Your task to perform on an android device: Search for Mexican restaurants on Maps Image 0: 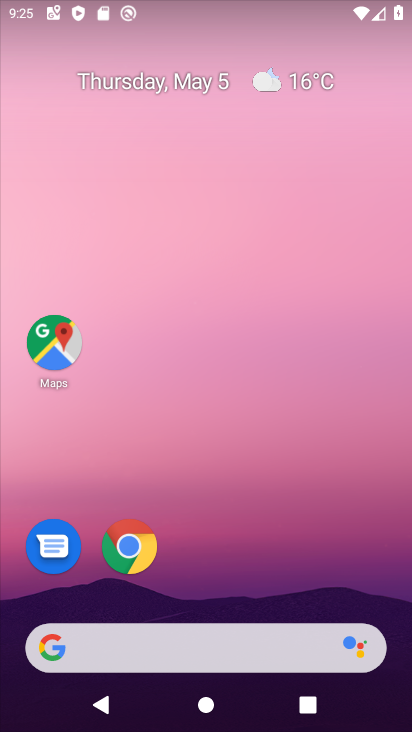
Step 0: drag from (190, 639) to (350, 43)
Your task to perform on an android device: Search for Mexican restaurants on Maps Image 1: 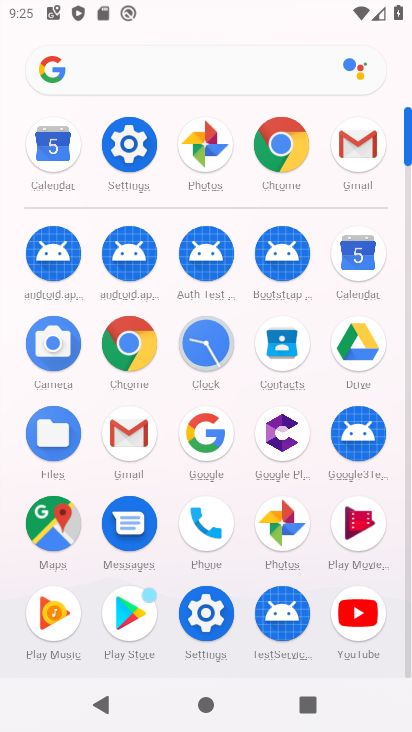
Step 1: click (54, 535)
Your task to perform on an android device: Search for Mexican restaurants on Maps Image 2: 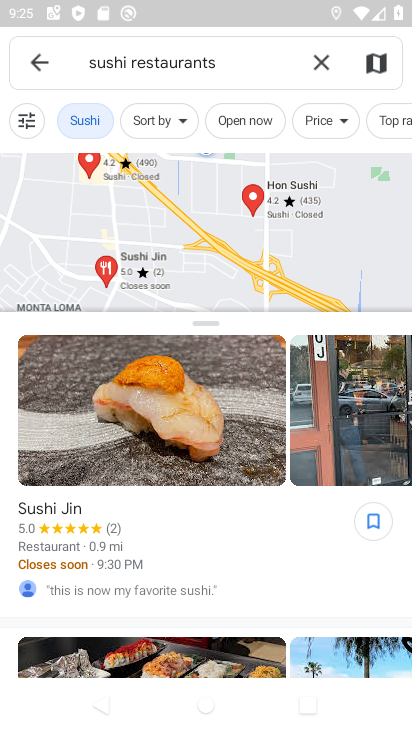
Step 2: click (318, 67)
Your task to perform on an android device: Search for Mexican restaurants on Maps Image 3: 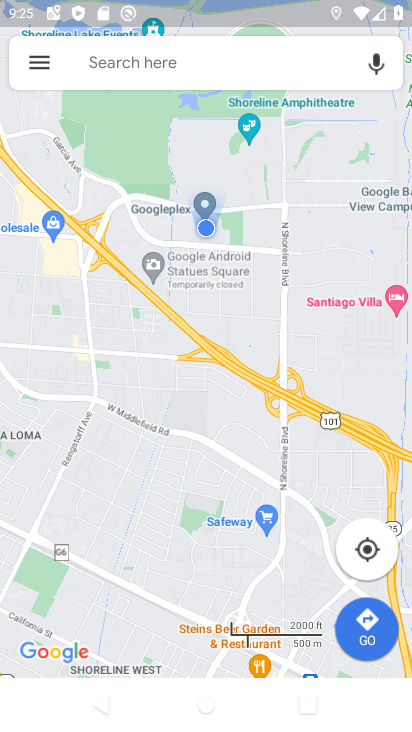
Step 3: click (122, 60)
Your task to perform on an android device: Search for Mexican restaurants on Maps Image 4: 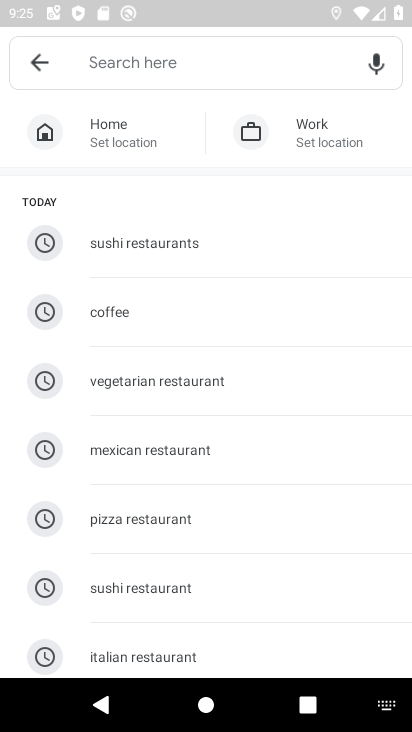
Step 4: click (169, 453)
Your task to perform on an android device: Search for Mexican restaurants on Maps Image 5: 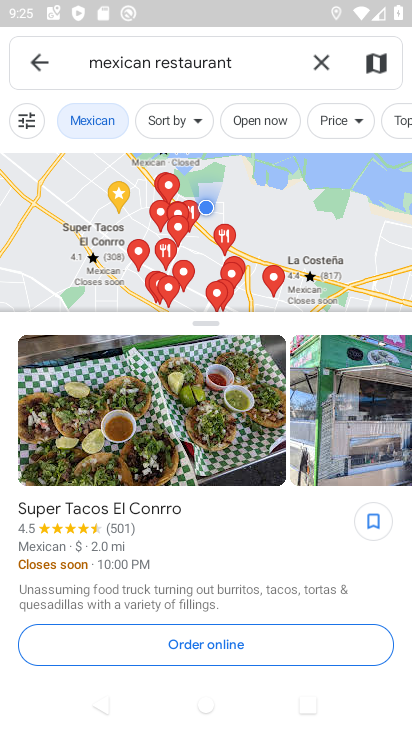
Step 5: task complete